Your task to perform on an android device: Open Reddit.com Image 0: 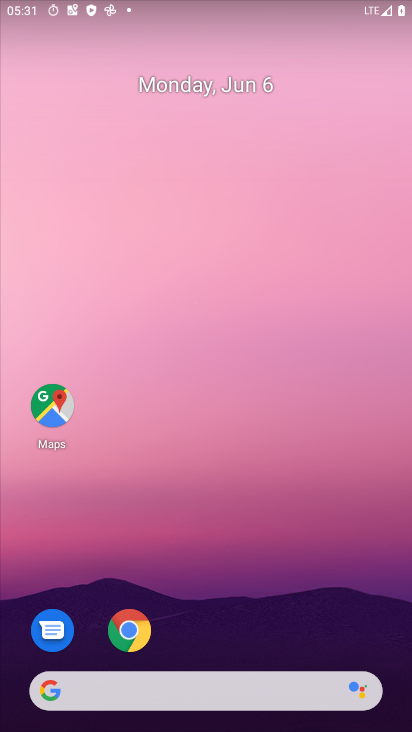
Step 0: click (125, 633)
Your task to perform on an android device: Open Reddit.com Image 1: 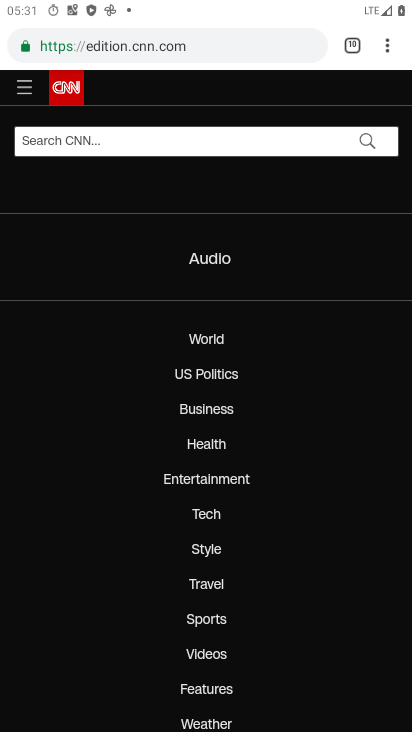
Step 1: click (110, 45)
Your task to perform on an android device: Open Reddit.com Image 2: 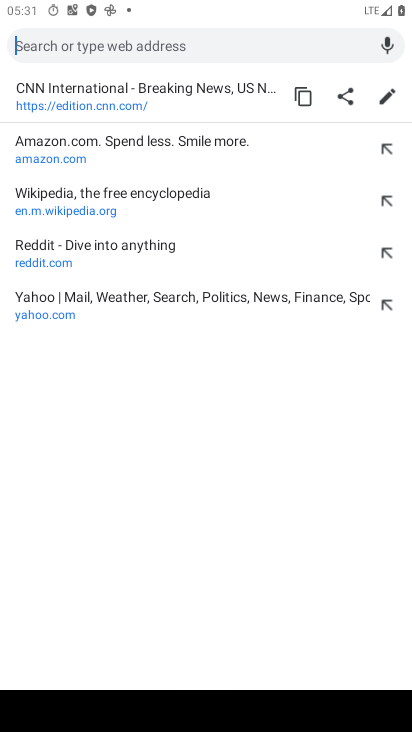
Step 2: type " Reddit.com"
Your task to perform on an android device: Open Reddit.com Image 3: 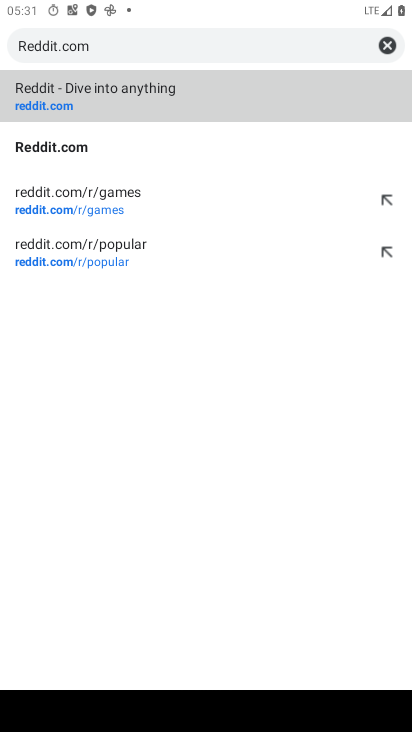
Step 3: click (50, 103)
Your task to perform on an android device: Open Reddit.com Image 4: 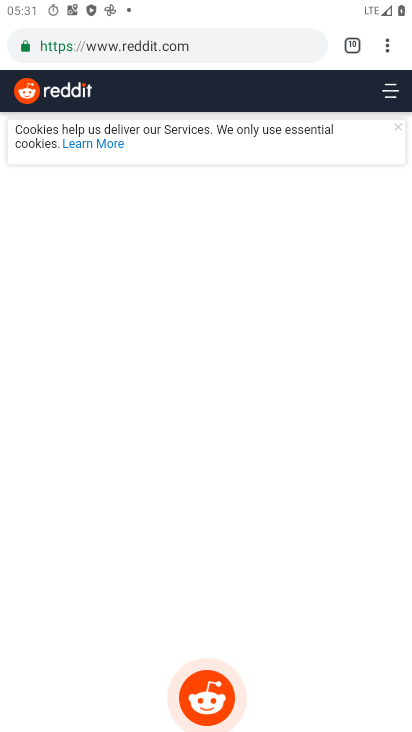
Step 4: task complete